Your task to perform on an android device: Open Youtube and go to the subscriptions tab Image 0: 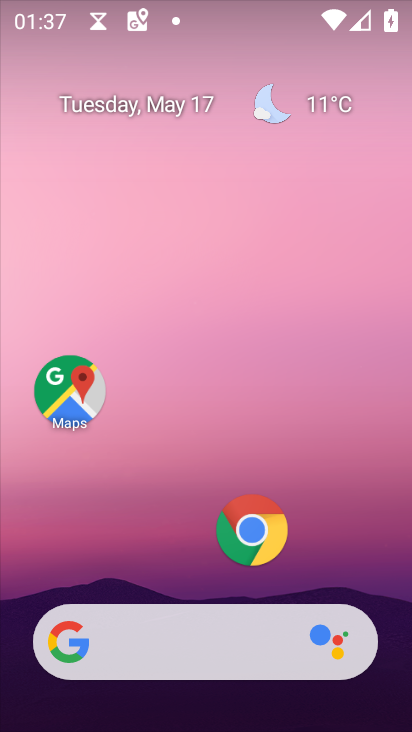
Step 0: drag from (316, 568) to (285, 200)
Your task to perform on an android device: Open Youtube and go to the subscriptions tab Image 1: 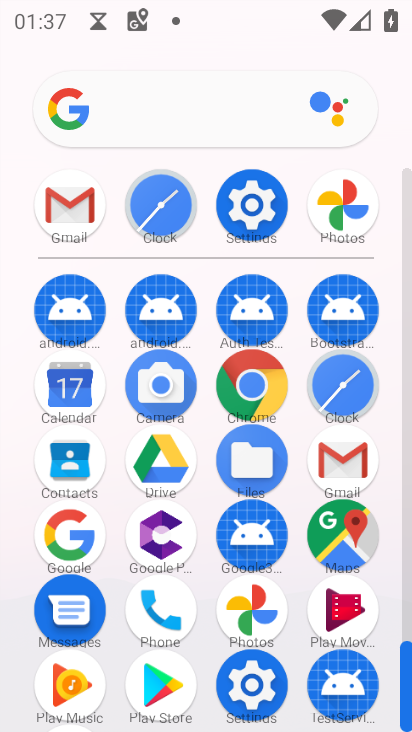
Step 1: drag from (204, 645) to (216, 393)
Your task to perform on an android device: Open Youtube and go to the subscriptions tab Image 2: 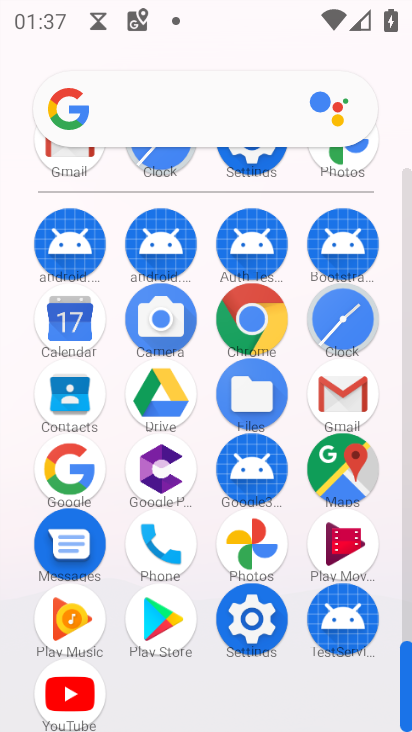
Step 2: click (66, 685)
Your task to perform on an android device: Open Youtube and go to the subscriptions tab Image 3: 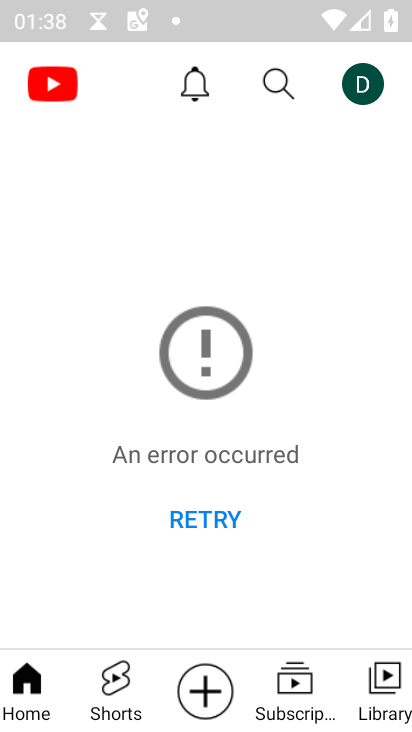
Step 3: click (290, 679)
Your task to perform on an android device: Open Youtube and go to the subscriptions tab Image 4: 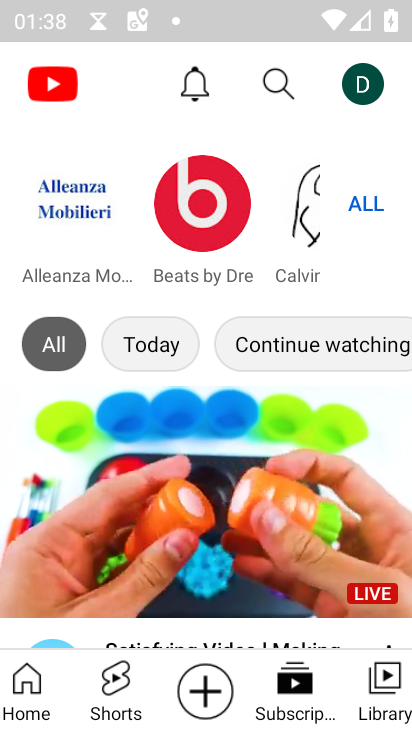
Step 4: task complete